Your task to perform on an android device: Open Yahoo.com Image 0: 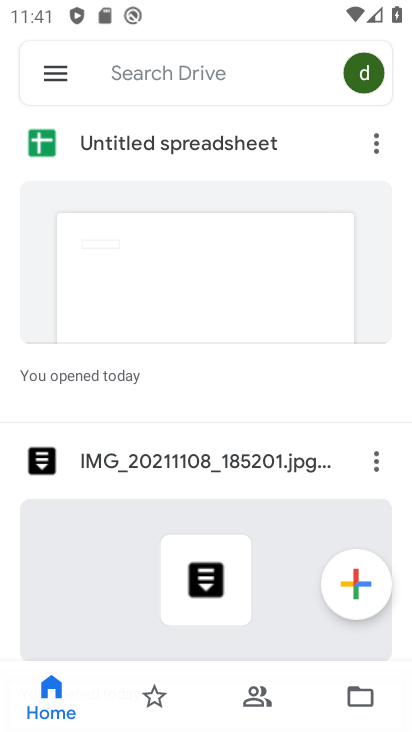
Step 0: press home button
Your task to perform on an android device: Open Yahoo.com Image 1: 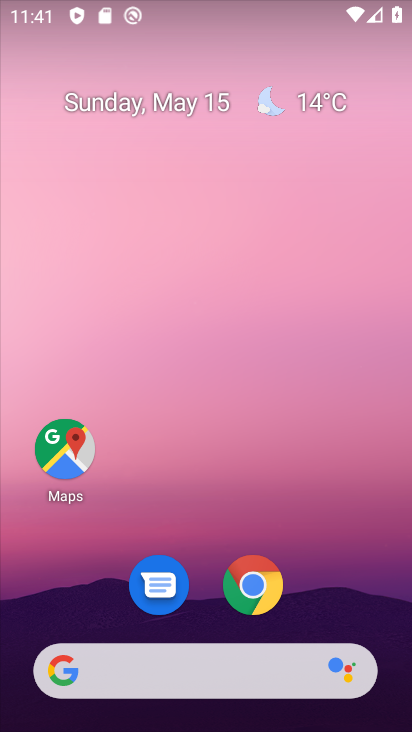
Step 1: click (177, 672)
Your task to perform on an android device: Open Yahoo.com Image 2: 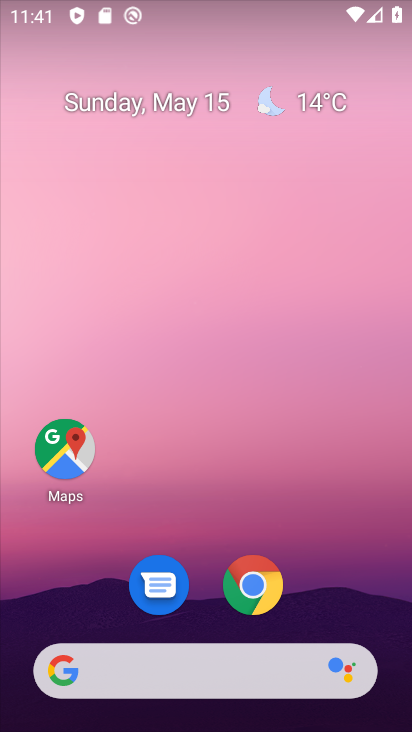
Step 2: type "yahoo.com"
Your task to perform on an android device: Open Yahoo.com Image 3: 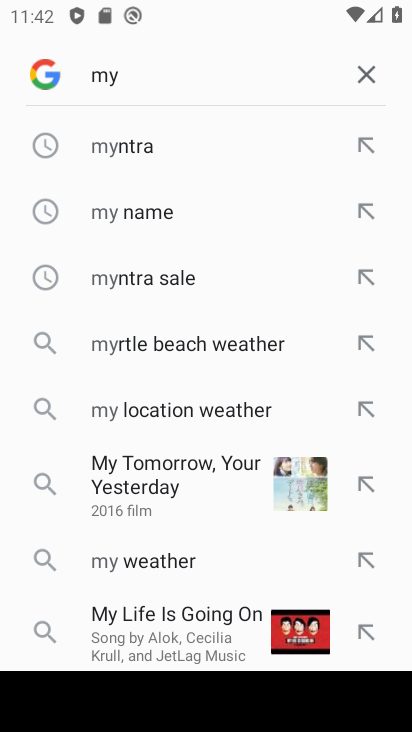
Step 3: click (366, 70)
Your task to perform on an android device: Open Yahoo.com Image 4: 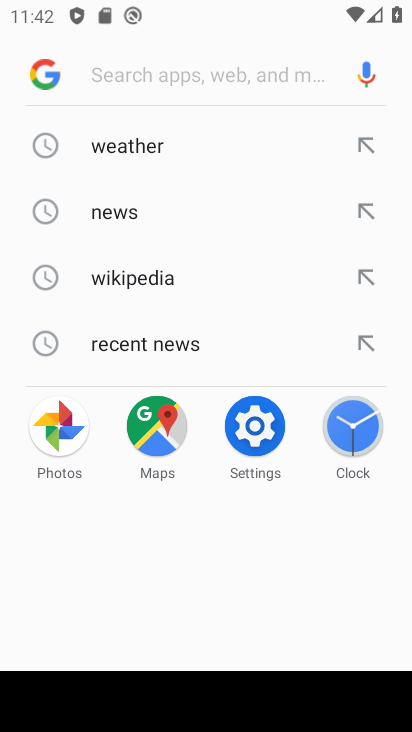
Step 4: type "yahoo.com"
Your task to perform on an android device: Open Yahoo.com Image 5: 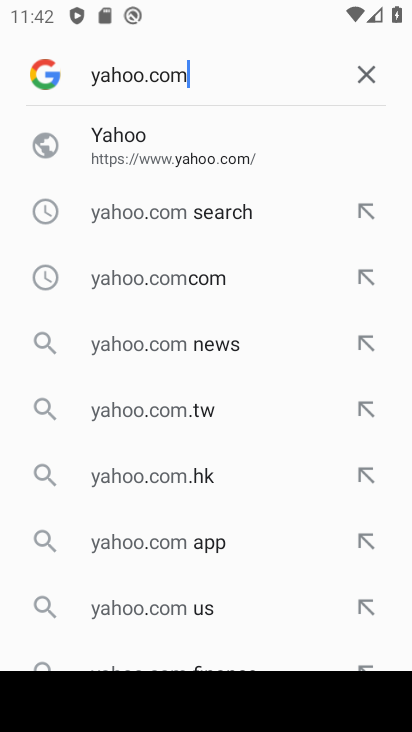
Step 5: click (104, 134)
Your task to perform on an android device: Open Yahoo.com Image 6: 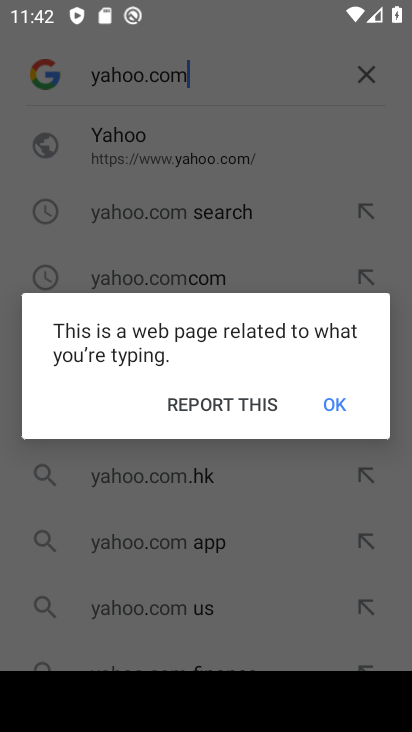
Step 6: click (330, 395)
Your task to perform on an android device: Open Yahoo.com Image 7: 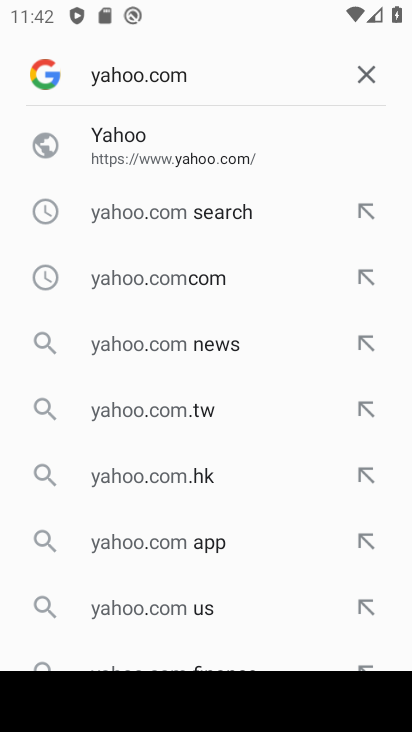
Step 7: click (113, 129)
Your task to perform on an android device: Open Yahoo.com Image 8: 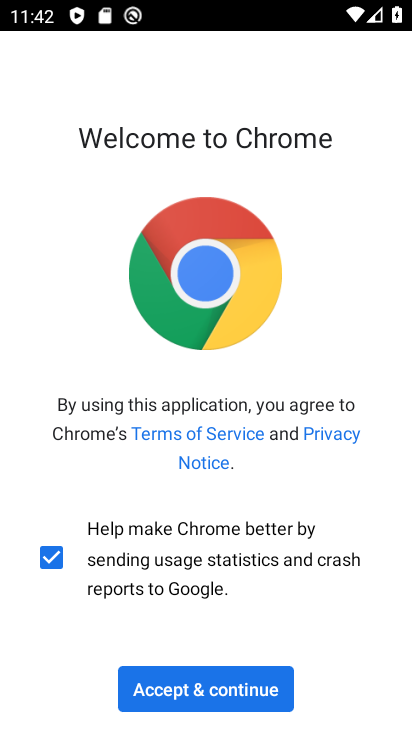
Step 8: click (272, 685)
Your task to perform on an android device: Open Yahoo.com Image 9: 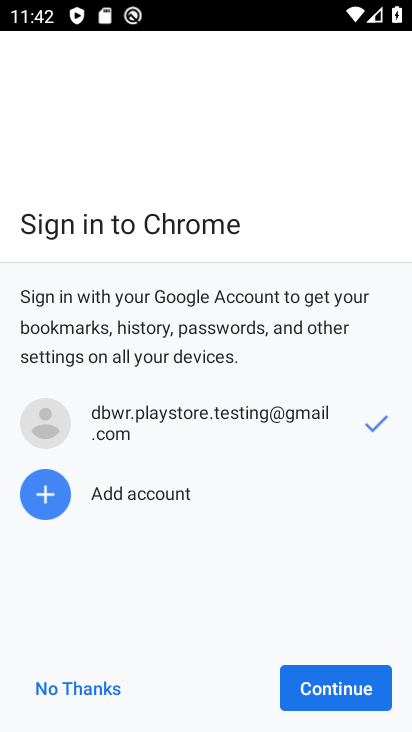
Step 9: click (326, 697)
Your task to perform on an android device: Open Yahoo.com Image 10: 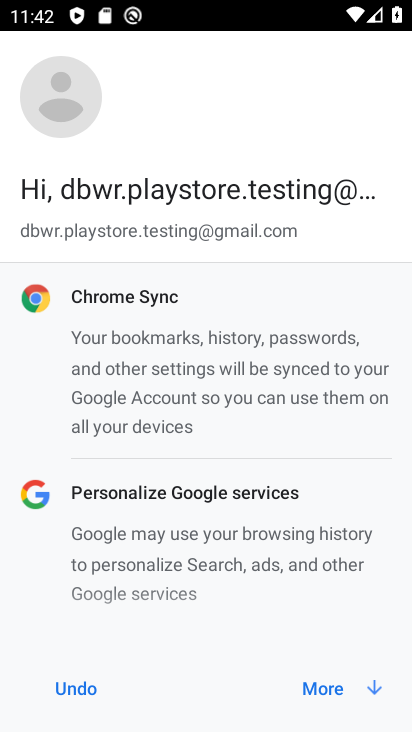
Step 10: click (331, 683)
Your task to perform on an android device: Open Yahoo.com Image 11: 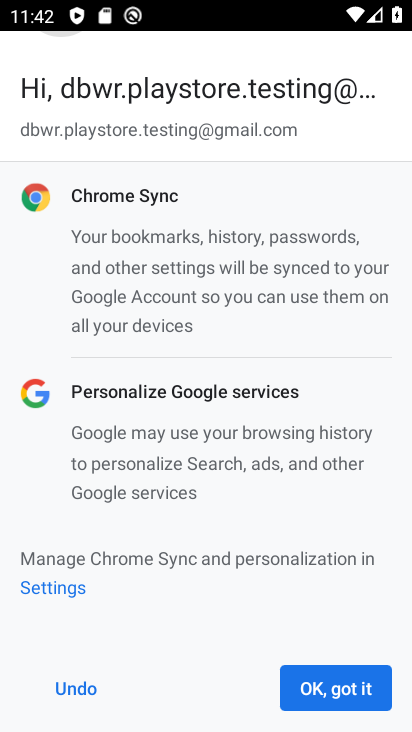
Step 11: click (332, 680)
Your task to perform on an android device: Open Yahoo.com Image 12: 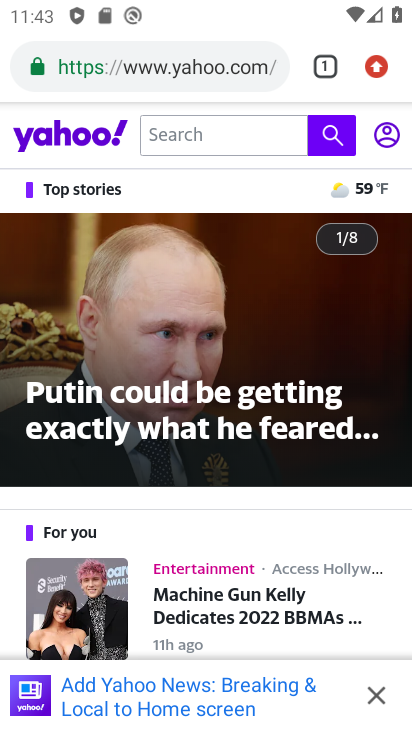
Step 12: task complete